Your task to perform on an android device: Go to network settings Image 0: 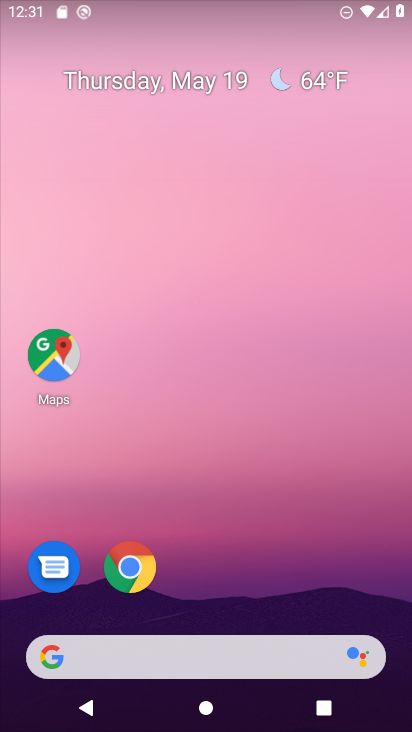
Step 0: drag from (213, 569) to (230, 47)
Your task to perform on an android device: Go to network settings Image 1: 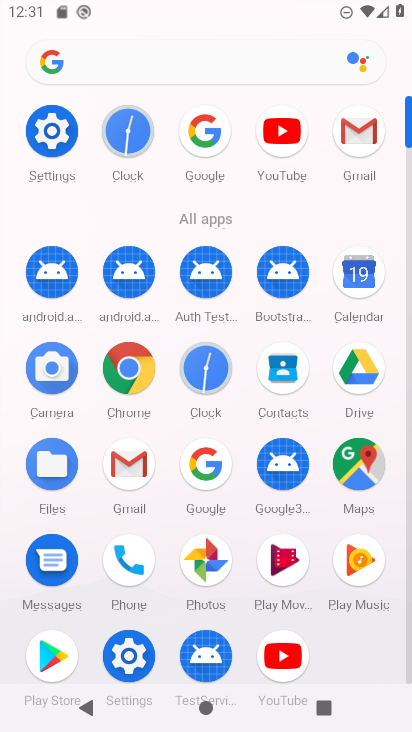
Step 1: click (68, 139)
Your task to perform on an android device: Go to network settings Image 2: 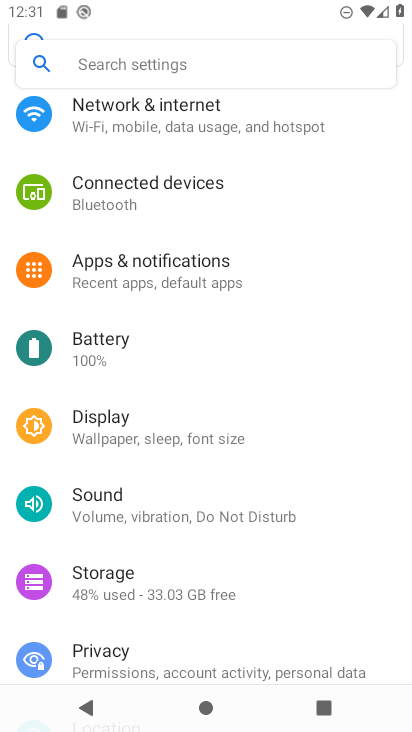
Step 2: click (258, 125)
Your task to perform on an android device: Go to network settings Image 3: 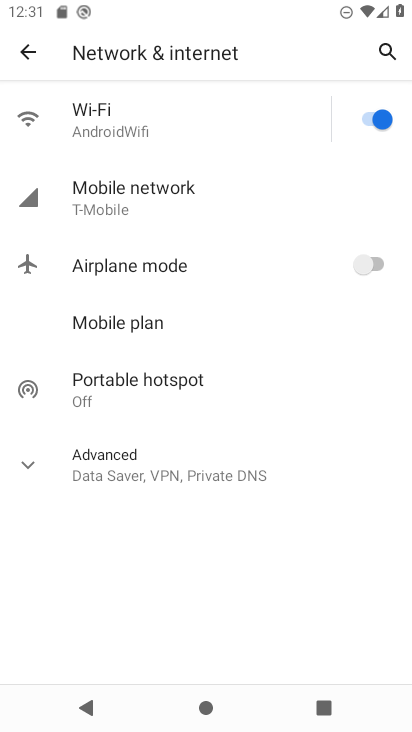
Step 3: task complete